Your task to perform on an android device: Open Google Chrome and click the shortcut for Amazon.com Image 0: 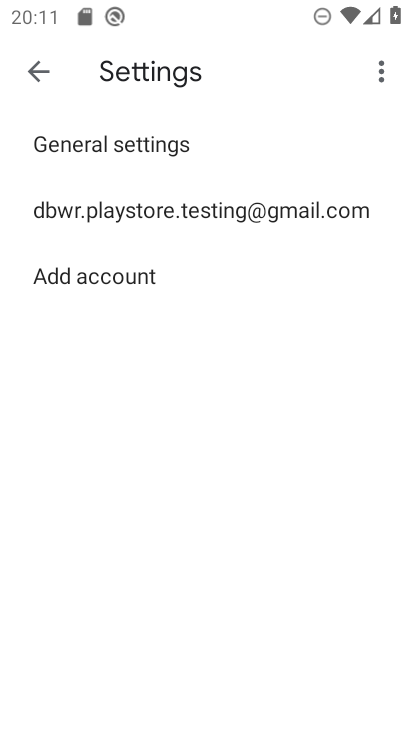
Step 0: press home button
Your task to perform on an android device: Open Google Chrome and click the shortcut for Amazon.com Image 1: 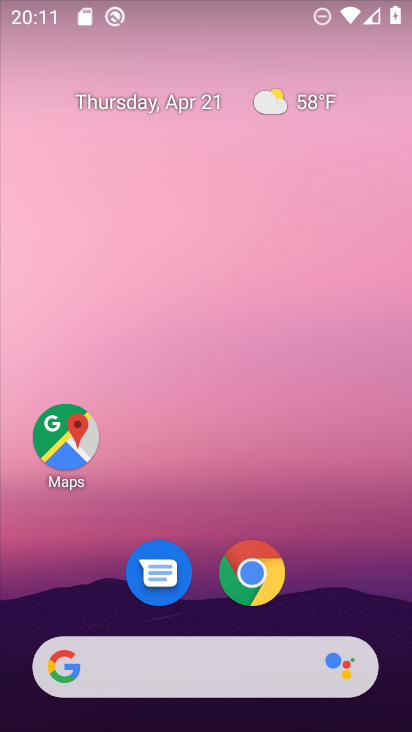
Step 1: click (255, 575)
Your task to perform on an android device: Open Google Chrome and click the shortcut for Amazon.com Image 2: 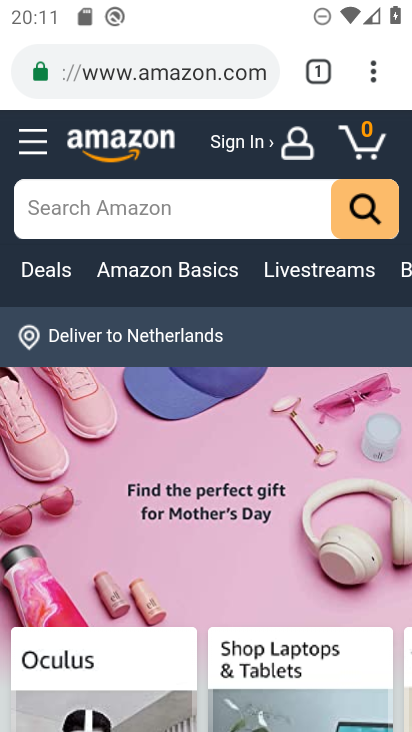
Step 2: task complete